Your task to perform on an android device: Open the downloads Image 0: 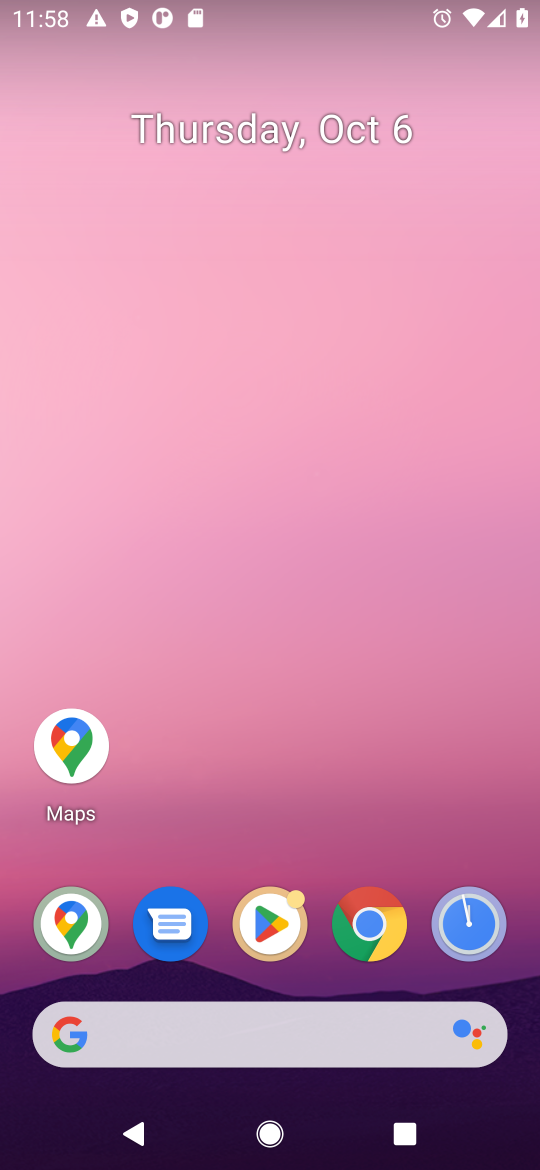
Step 0: drag from (272, 1024) to (456, 247)
Your task to perform on an android device: Open the downloads Image 1: 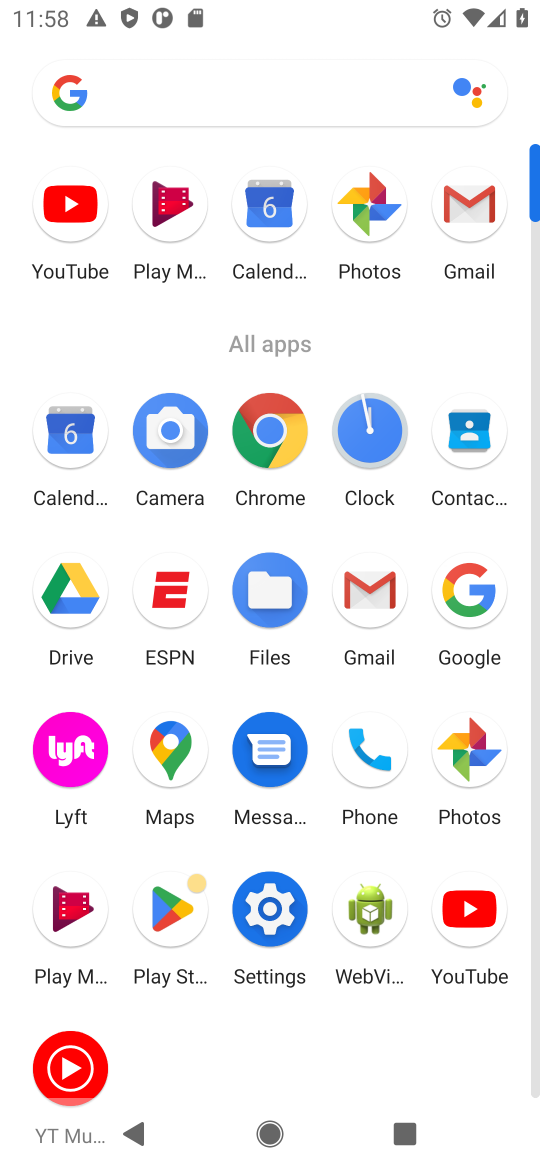
Step 1: click (64, 612)
Your task to perform on an android device: Open the downloads Image 2: 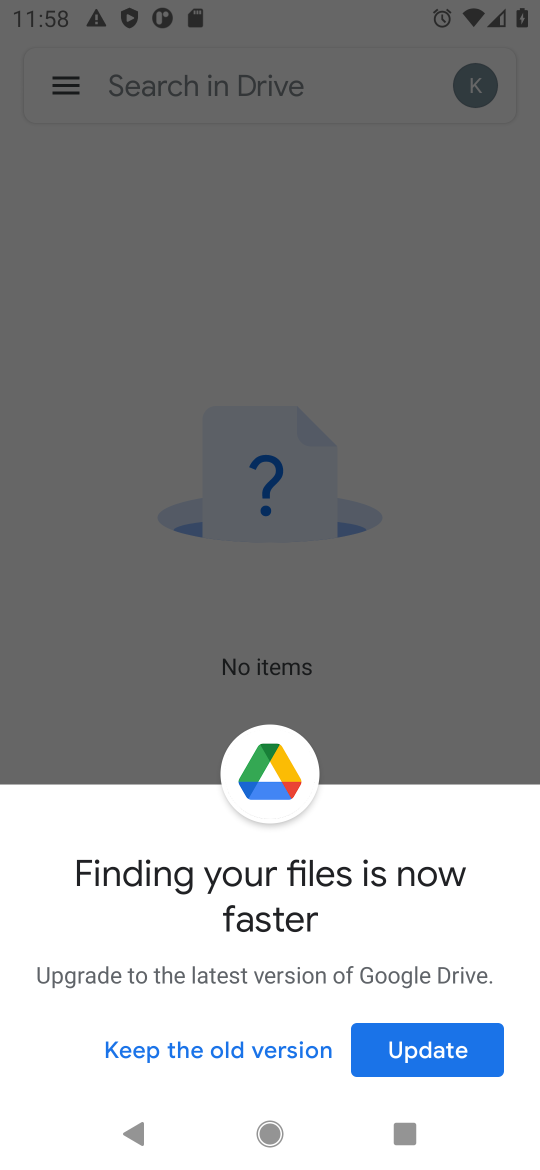
Step 2: click (191, 1043)
Your task to perform on an android device: Open the downloads Image 3: 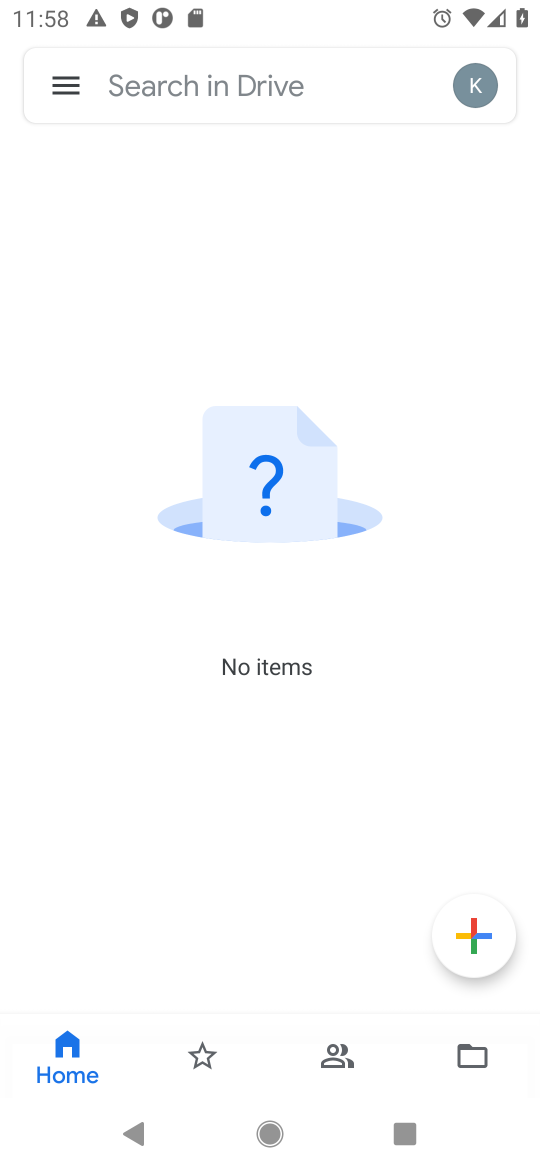
Step 3: click (67, 83)
Your task to perform on an android device: Open the downloads Image 4: 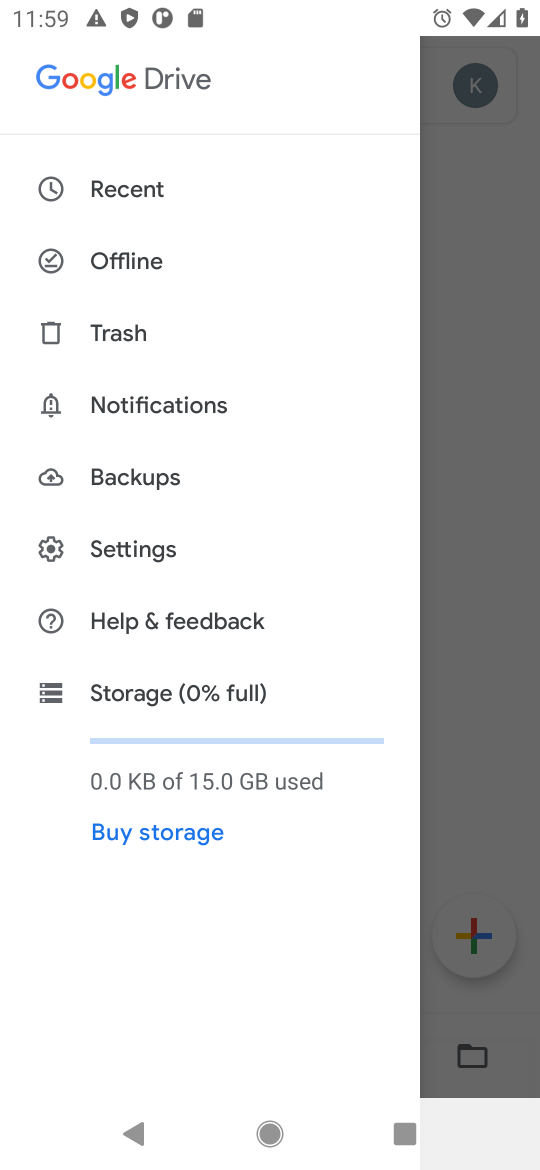
Step 4: click (130, 182)
Your task to perform on an android device: Open the downloads Image 5: 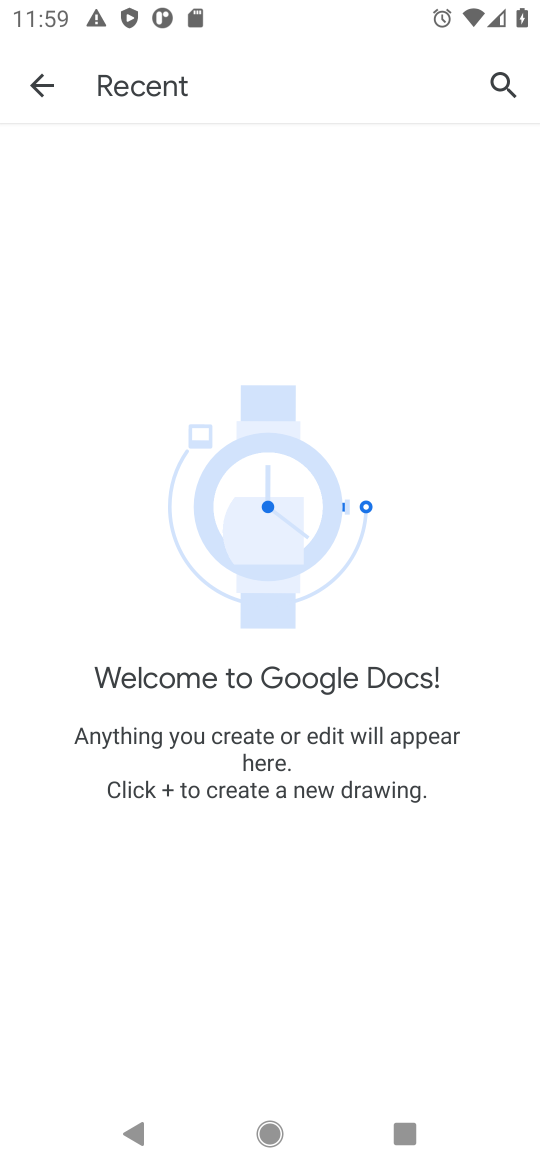
Step 5: click (30, 74)
Your task to perform on an android device: Open the downloads Image 6: 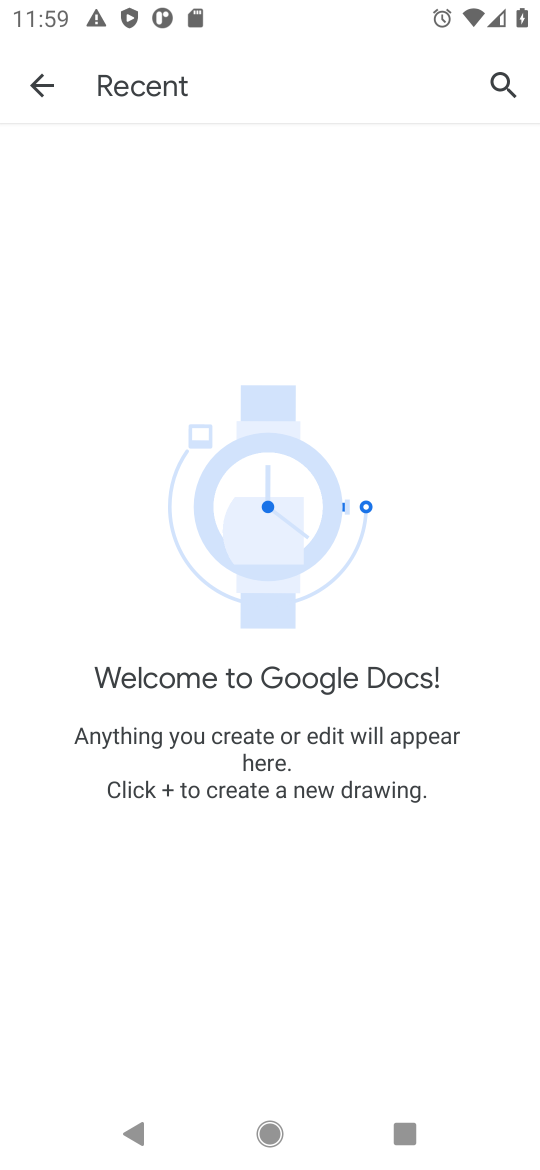
Step 6: click (40, 86)
Your task to perform on an android device: Open the downloads Image 7: 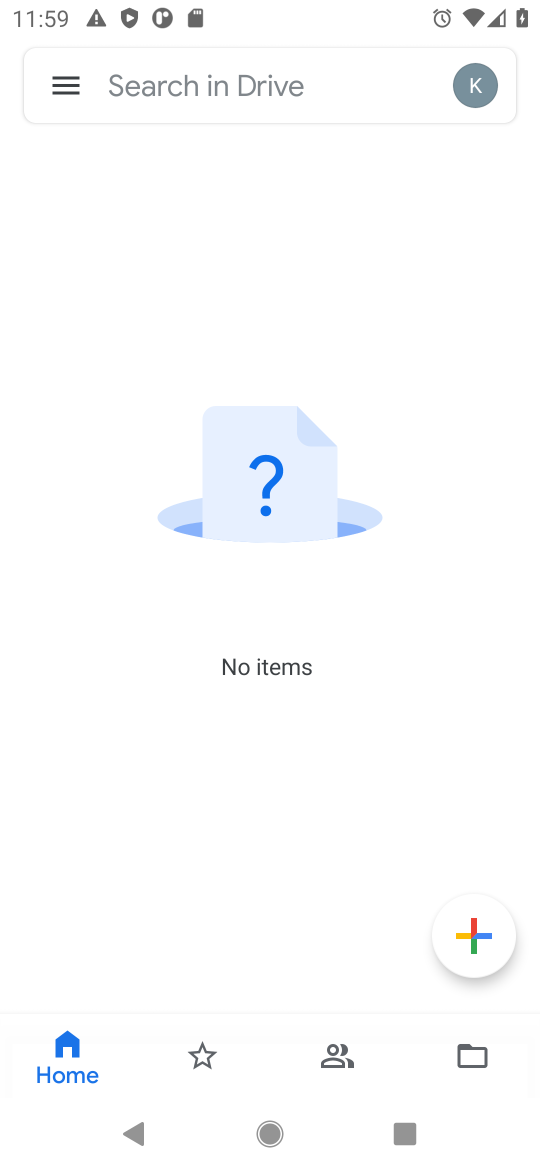
Step 7: click (58, 75)
Your task to perform on an android device: Open the downloads Image 8: 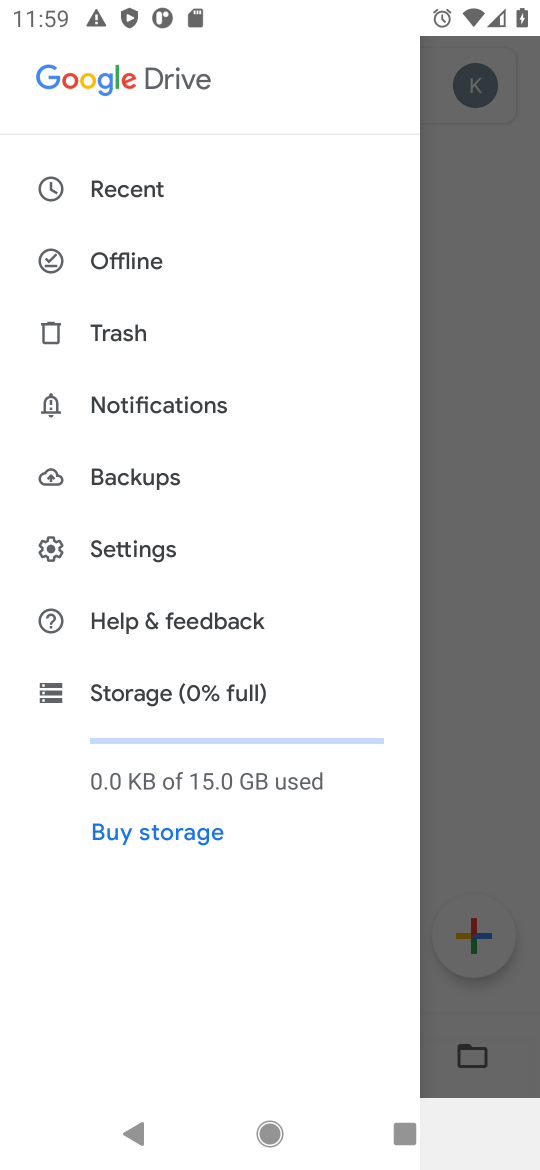
Step 8: drag from (178, 1001) to (355, 523)
Your task to perform on an android device: Open the downloads Image 9: 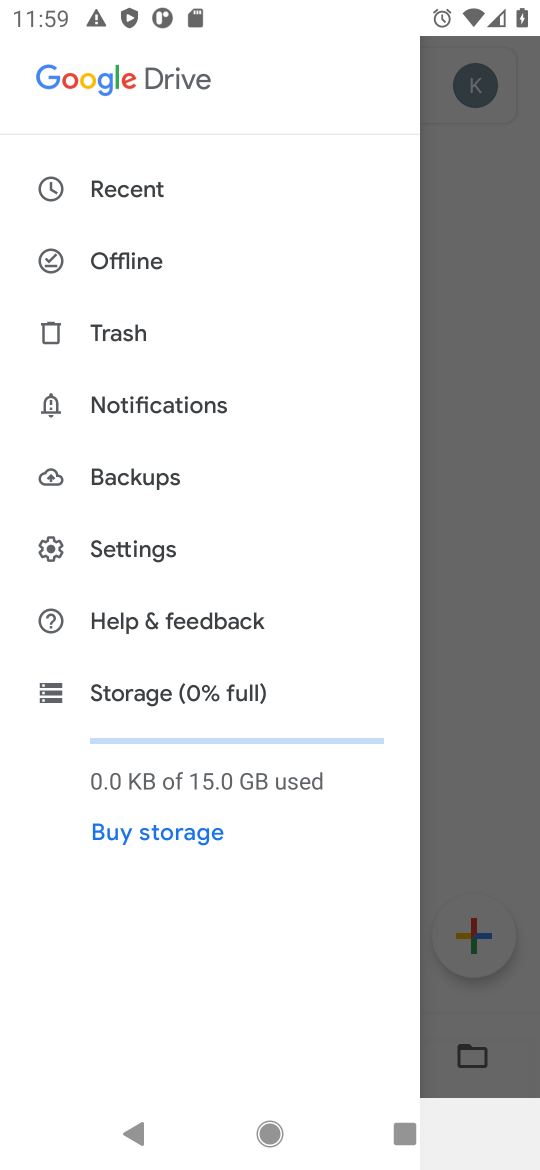
Step 9: press back button
Your task to perform on an android device: Open the downloads Image 10: 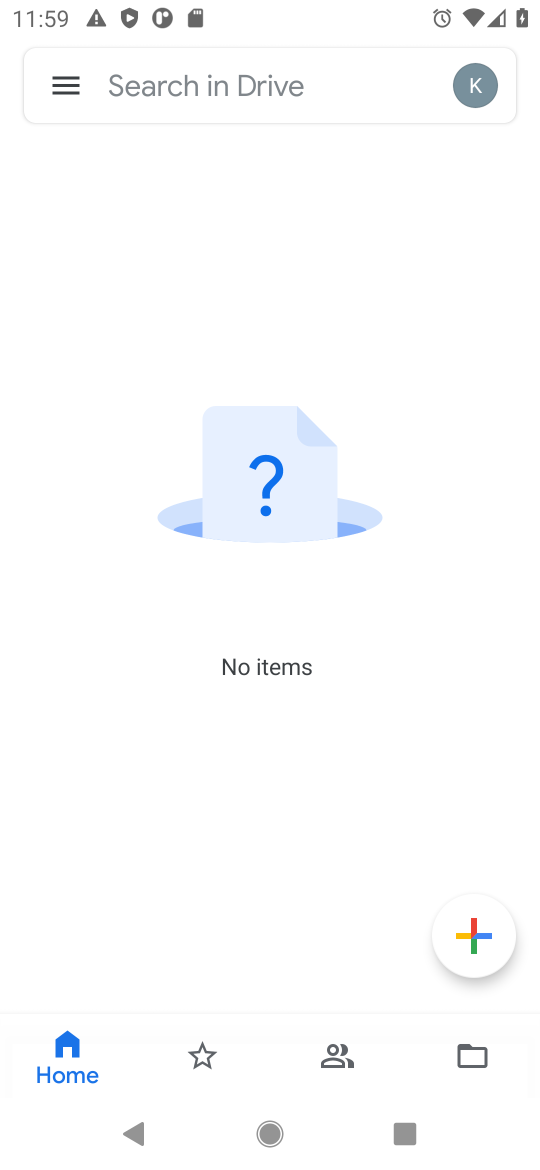
Step 10: click (469, 1049)
Your task to perform on an android device: Open the downloads Image 11: 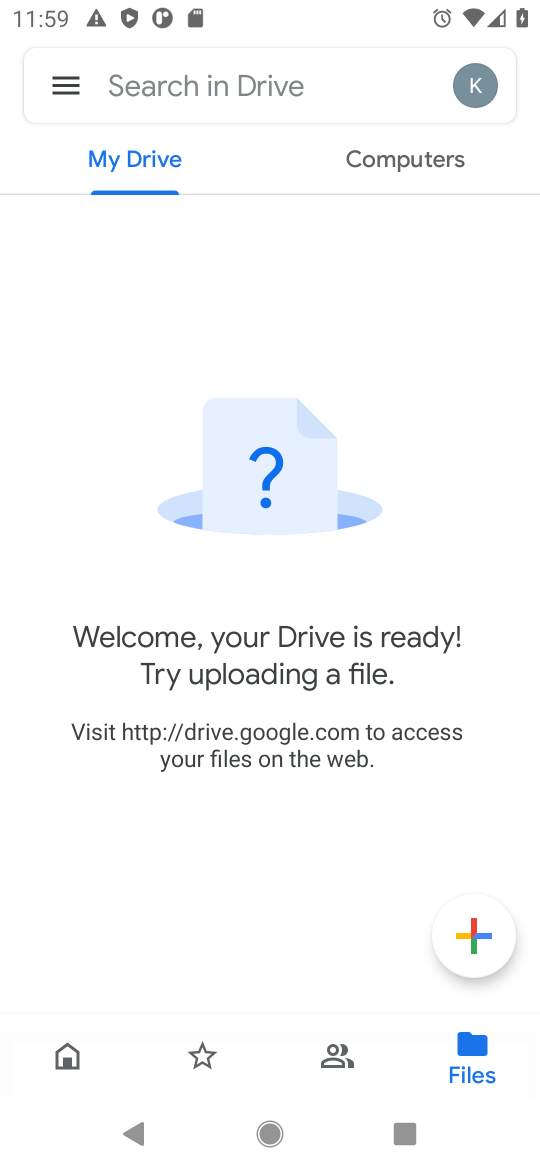
Step 11: click (379, 159)
Your task to perform on an android device: Open the downloads Image 12: 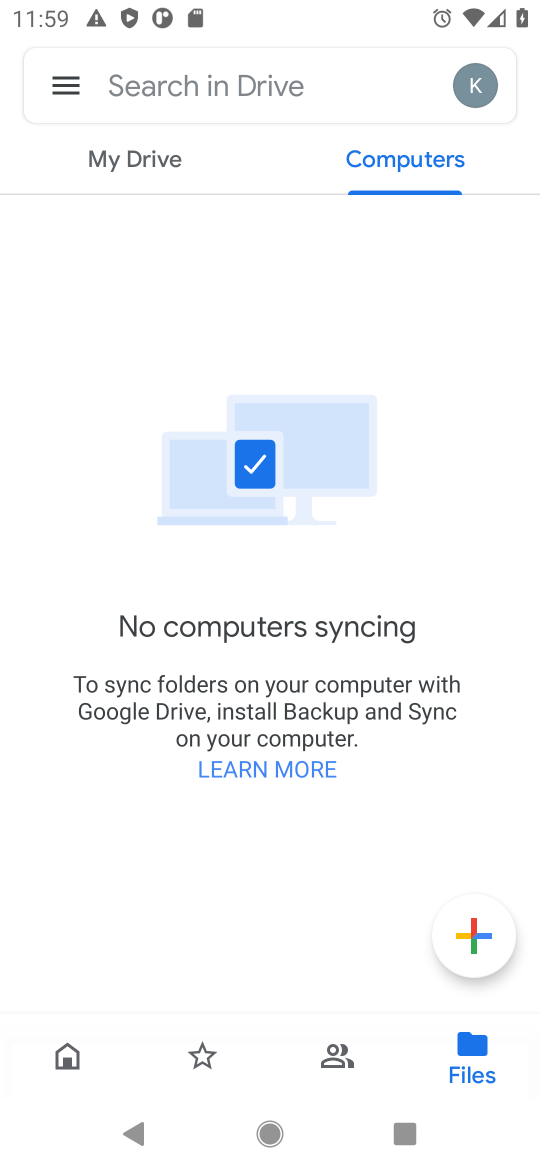
Step 12: click (125, 173)
Your task to perform on an android device: Open the downloads Image 13: 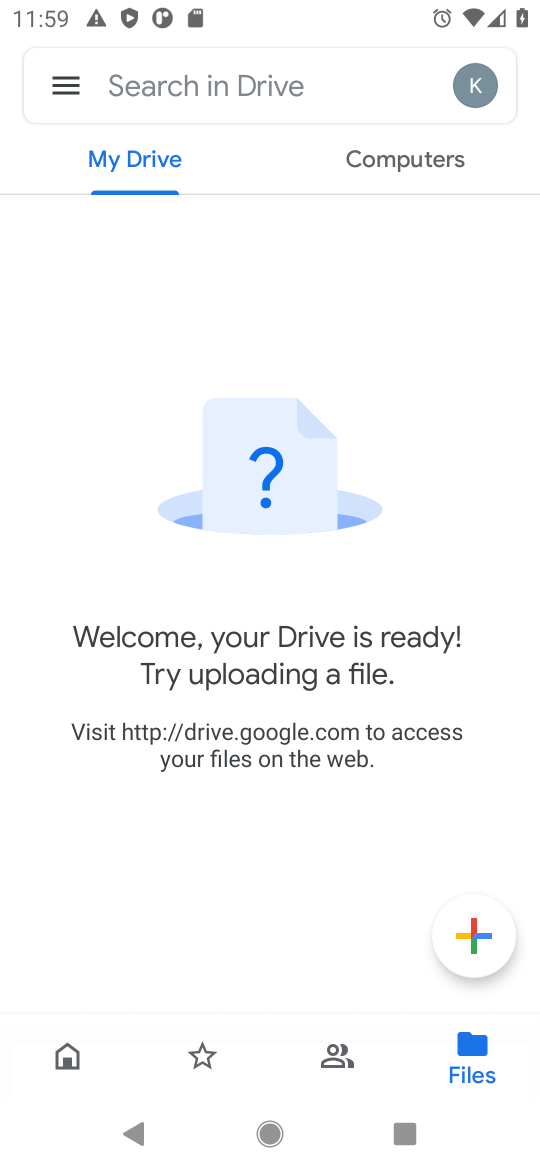
Step 13: task complete